Your task to perform on an android device: What's on my calendar tomorrow? Image 0: 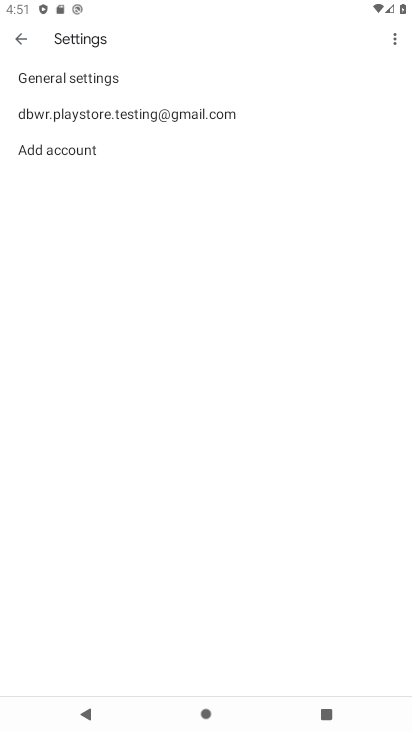
Step 0: press back button
Your task to perform on an android device: What's on my calendar tomorrow? Image 1: 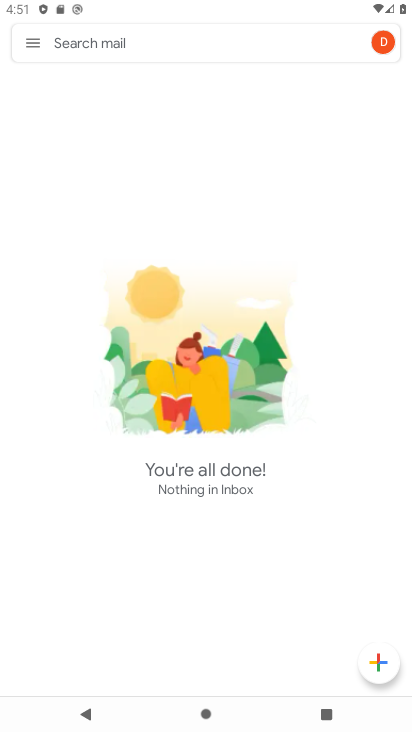
Step 1: press back button
Your task to perform on an android device: What's on my calendar tomorrow? Image 2: 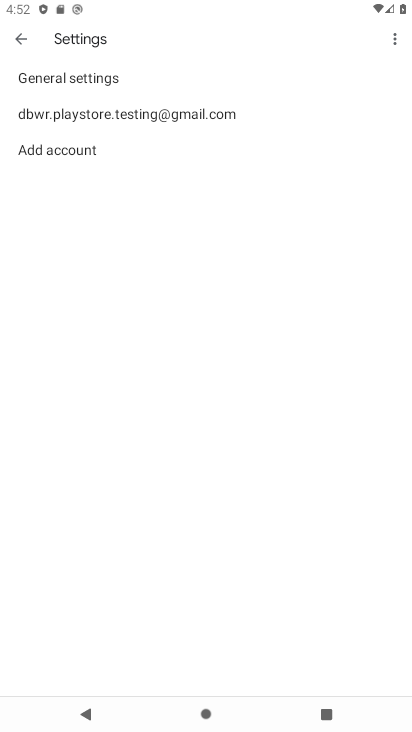
Step 2: press back button
Your task to perform on an android device: What's on my calendar tomorrow? Image 3: 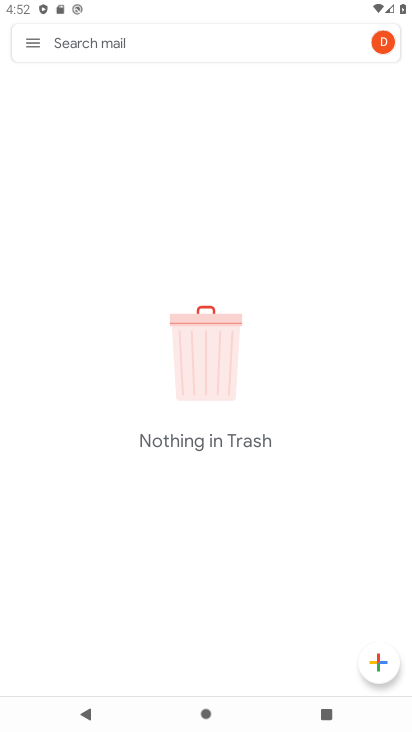
Step 3: press home button
Your task to perform on an android device: What's on my calendar tomorrow? Image 4: 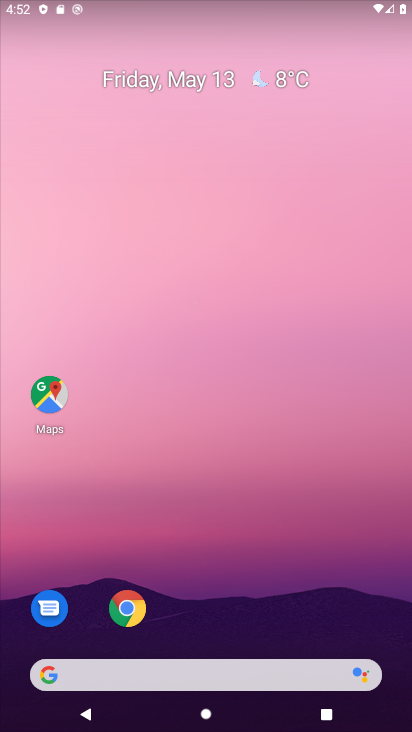
Step 4: drag from (199, 552) to (149, 87)
Your task to perform on an android device: What's on my calendar tomorrow? Image 5: 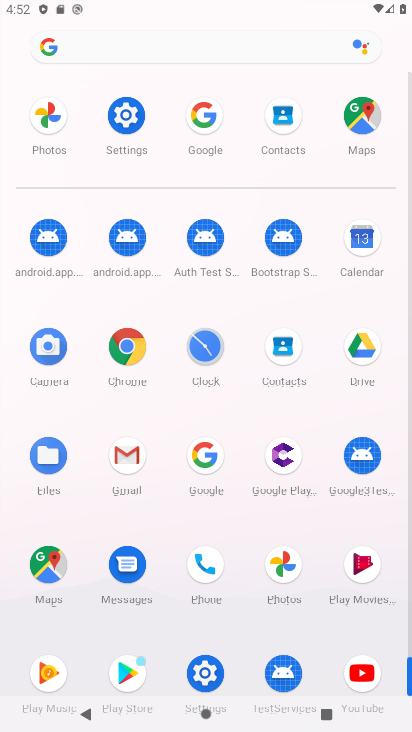
Step 5: click (363, 236)
Your task to perform on an android device: What's on my calendar tomorrow? Image 6: 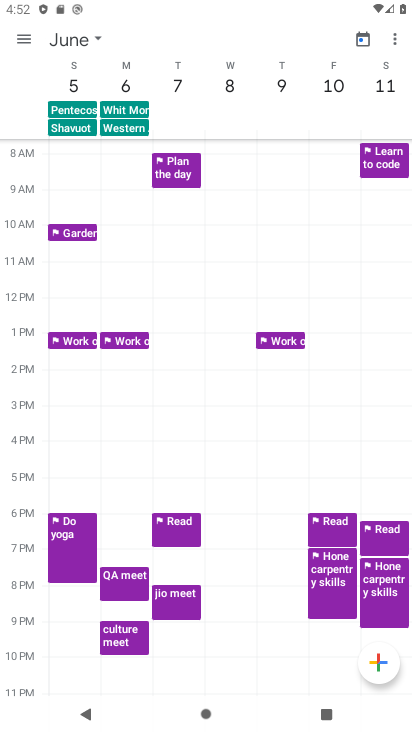
Step 6: click (363, 42)
Your task to perform on an android device: What's on my calendar tomorrow? Image 7: 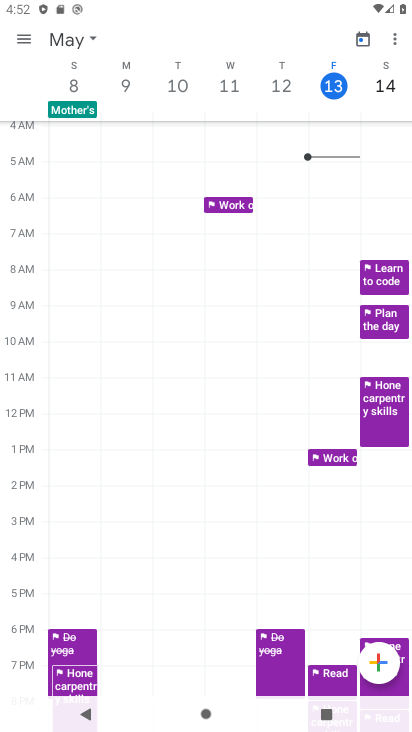
Step 7: click (89, 36)
Your task to perform on an android device: What's on my calendar tomorrow? Image 8: 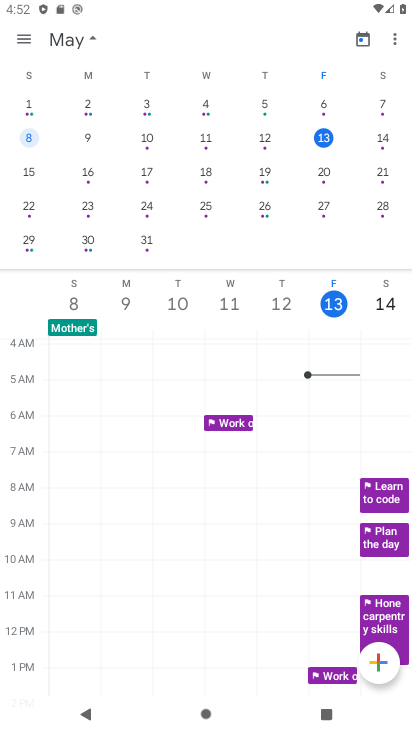
Step 8: click (382, 131)
Your task to perform on an android device: What's on my calendar tomorrow? Image 9: 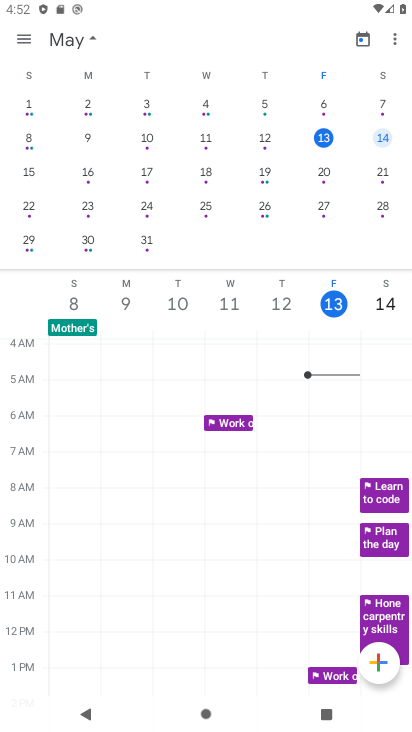
Step 9: click (26, 34)
Your task to perform on an android device: What's on my calendar tomorrow? Image 10: 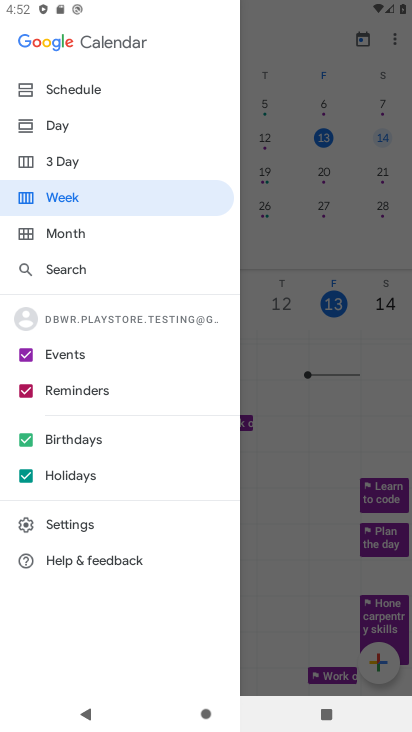
Step 10: click (77, 93)
Your task to perform on an android device: What's on my calendar tomorrow? Image 11: 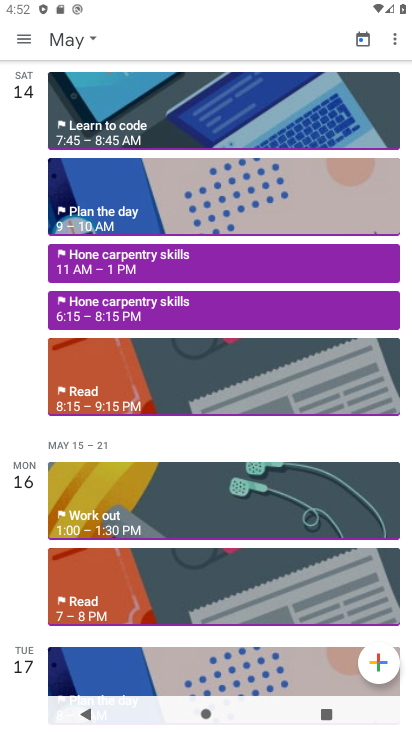
Step 11: task complete